Your task to perform on an android device: Find coffee shops on Maps Image 0: 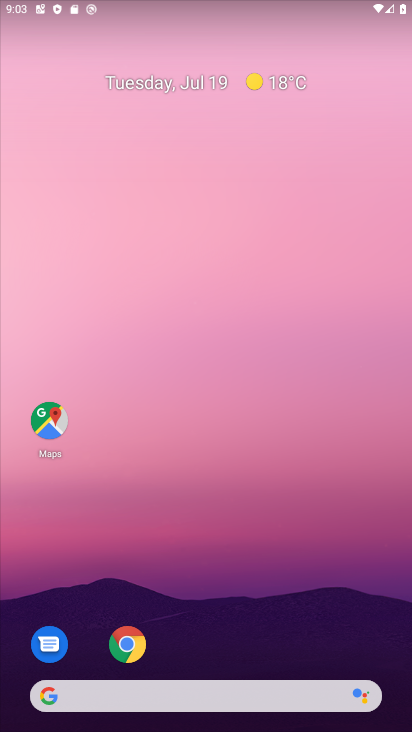
Step 0: drag from (206, 719) to (184, 243)
Your task to perform on an android device: Find coffee shops on Maps Image 1: 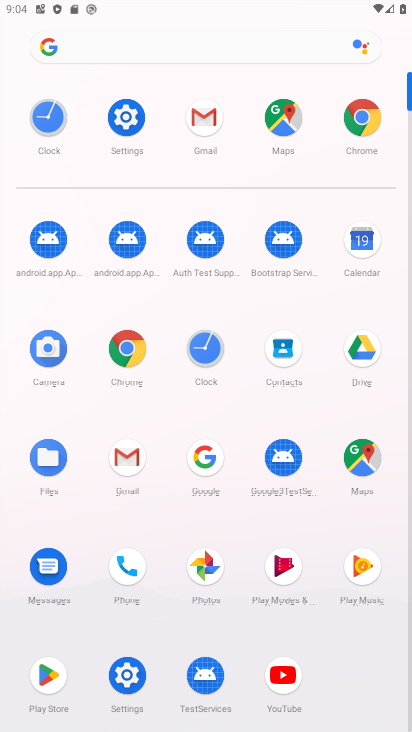
Step 1: click (365, 458)
Your task to perform on an android device: Find coffee shops on Maps Image 2: 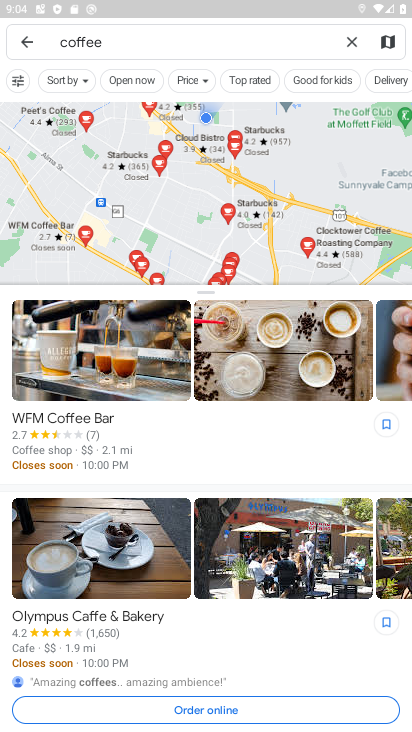
Step 2: click (347, 37)
Your task to perform on an android device: Find coffee shops on Maps Image 3: 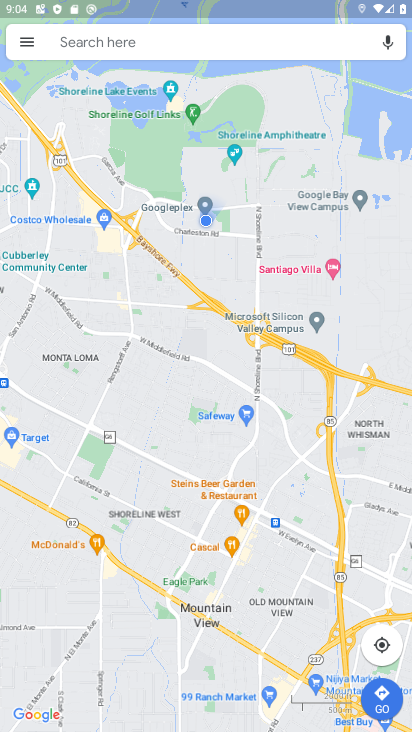
Step 3: click (255, 37)
Your task to perform on an android device: Find coffee shops on Maps Image 4: 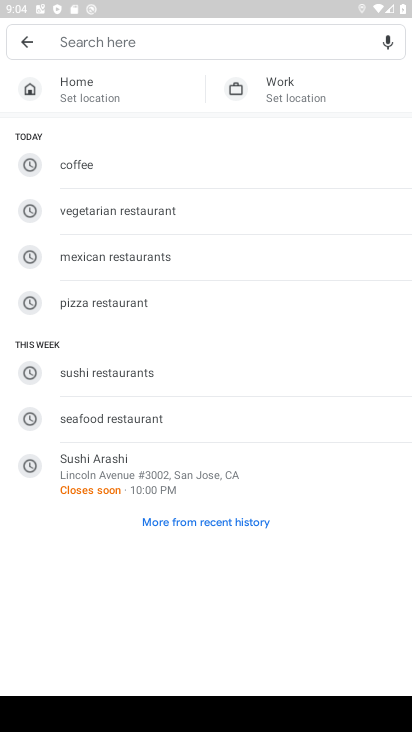
Step 4: type "coffee shops"
Your task to perform on an android device: Find coffee shops on Maps Image 5: 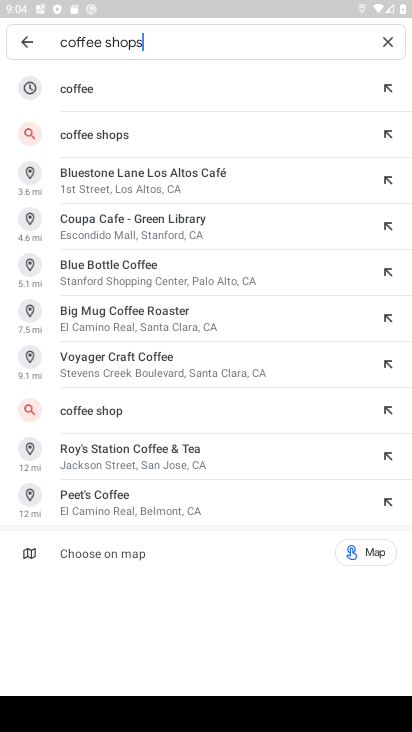
Step 5: click (96, 136)
Your task to perform on an android device: Find coffee shops on Maps Image 6: 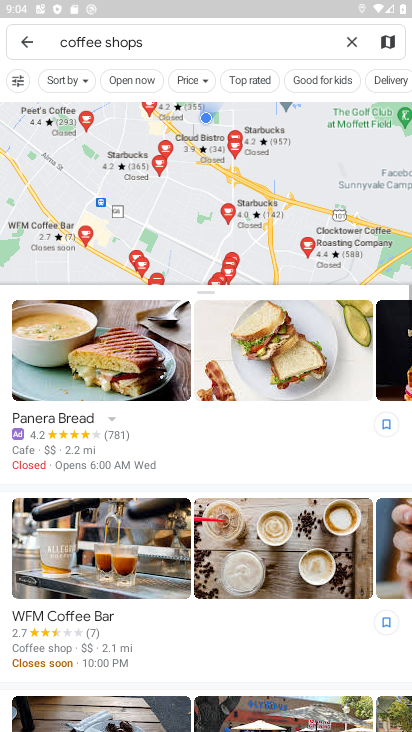
Step 6: task complete